Your task to perform on an android device: turn off priority inbox in the gmail app Image 0: 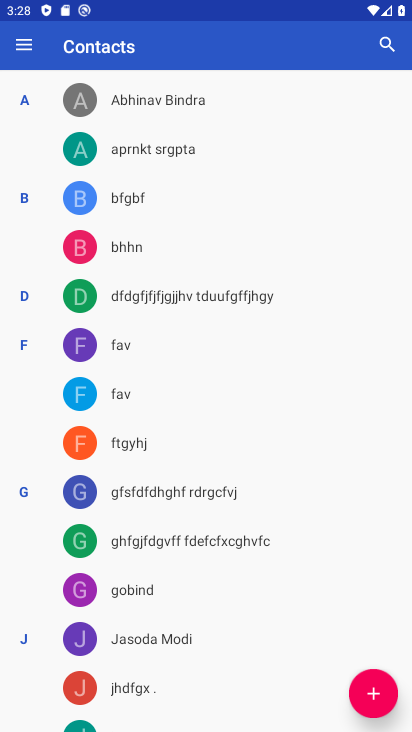
Step 0: press back button
Your task to perform on an android device: turn off priority inbox in the gmail app Image 1: 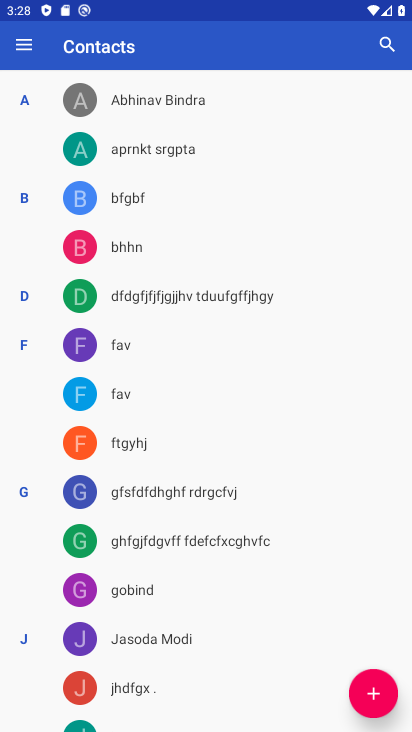
Step 1: press back button
Your task to perform on an android device: turn off priority inbox in the gmail app Image 2: 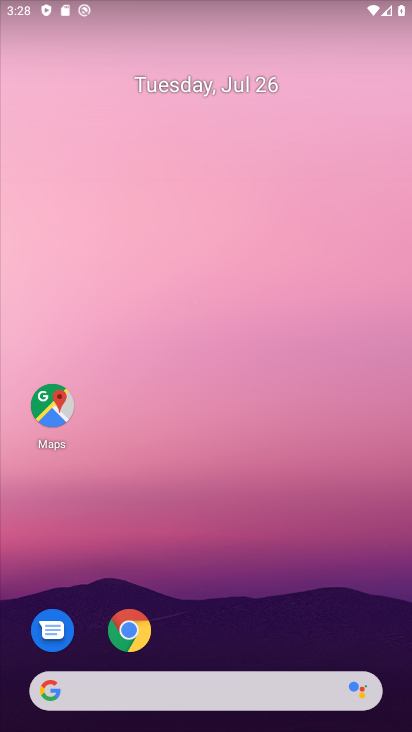
Step 2: drag from (224, 705) to (168, 164)
Your task to perform on an android device: turn off priority inbox in the gmail app Image 3: 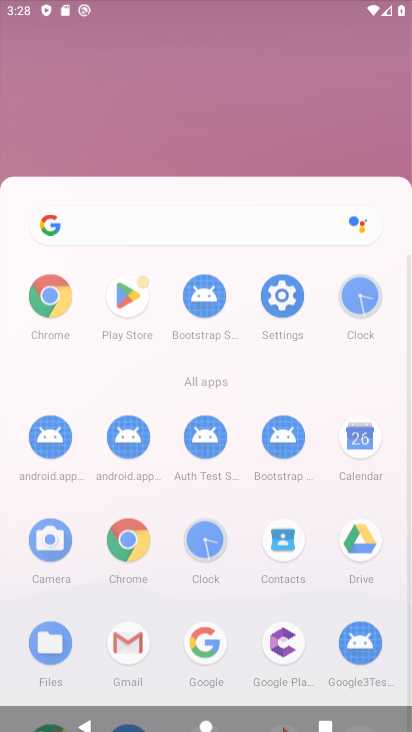
Step 3: drag from (251, 547) to (280, 191)
Your task to perform on an android device: turn off priority inbox in the gmail app Image 4: 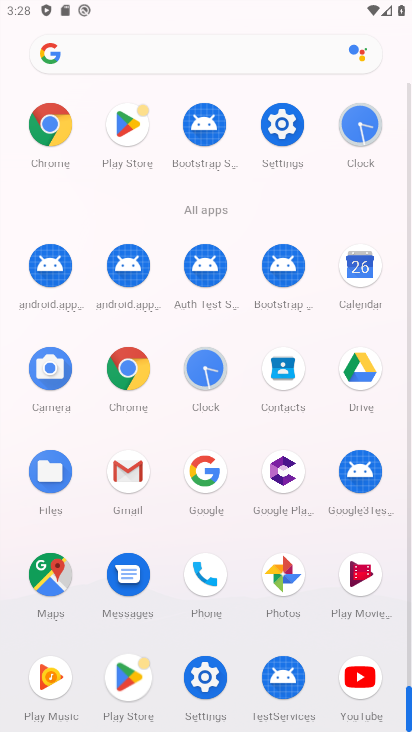
Step 4: click (125, 470)
Your task to perform on an android device: turn off priority inbox in the gmail app Image 5: 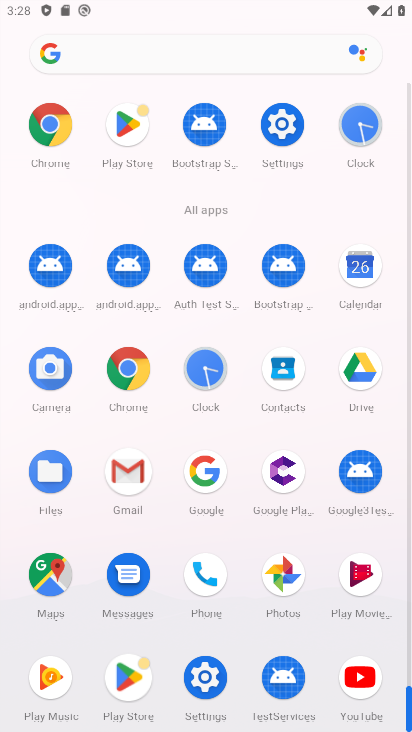
Step 5: click (125, 470)
Your task to perform on an android device: turn off priority inbox in the gmail app Image 6: 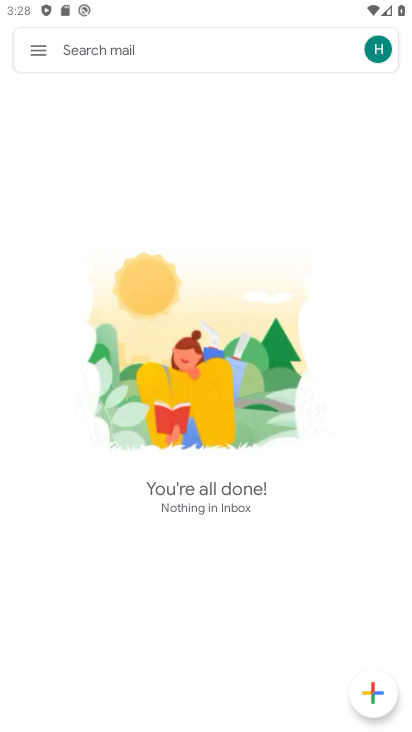
Step 6: click (37, 49)
Your task to perform on an android device: turn off priority inbox in the gmail app Image 7: 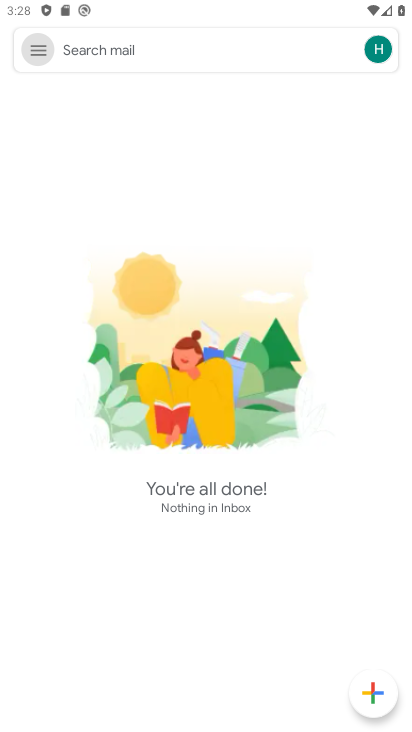
Step 7: click (38, 49)
Your task to perform on an android device: turn off priority inbox in the gmail app Image 8: 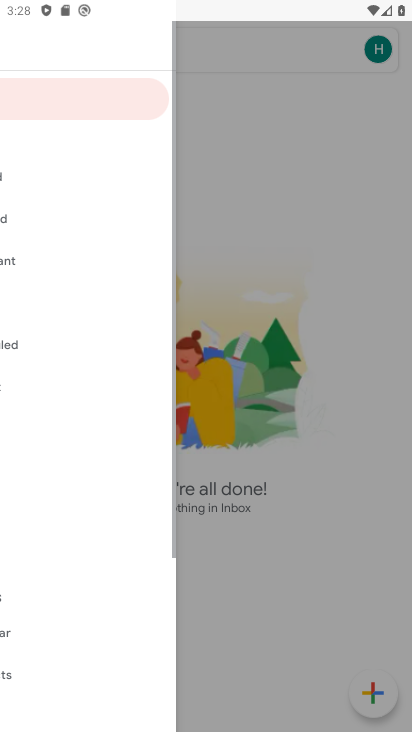
Step 8: click (39, 49)
Your task to perform on an android device: turn off priority inbox in the gmail app Image 9: 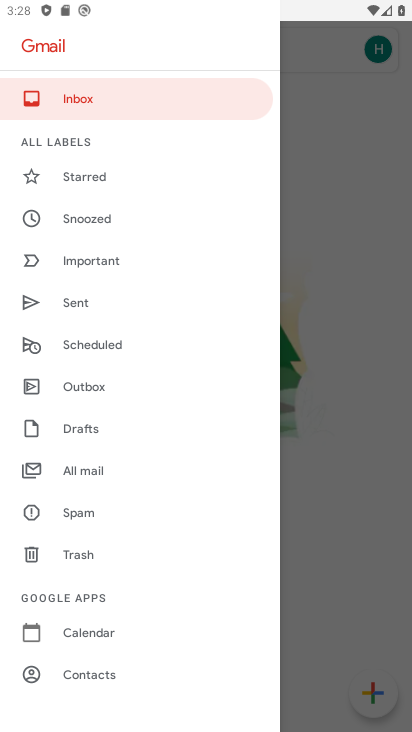
Step 9: drag from (90, 679) to (105, 155)
Your task to perform on an android device: turn off priority inbox in the gmail app Image 10: 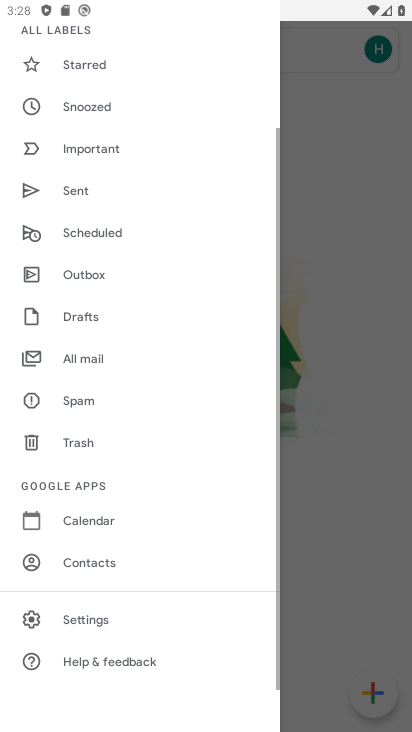
Step 10: drag from (101, 562) to (100, 208)
Your task to perform on an android device: turn off priority inbox in the gmail app Image 11: 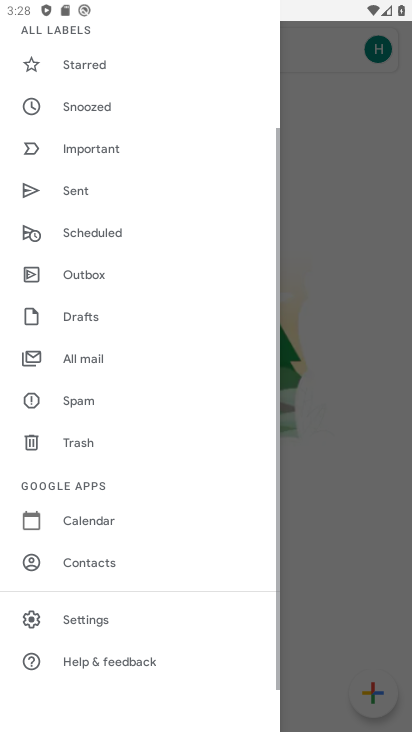
Step 11: click (87, 612)
Your task to perform on an android device: turn off priority inbox in the gmail app Image 12: 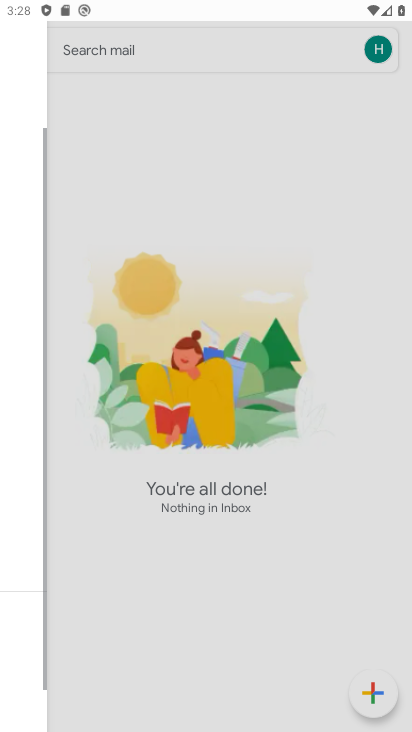
Step 12: click (92, 615)
Your task to perform on an android device: turn off priority inbox in the gmail app Image 13: 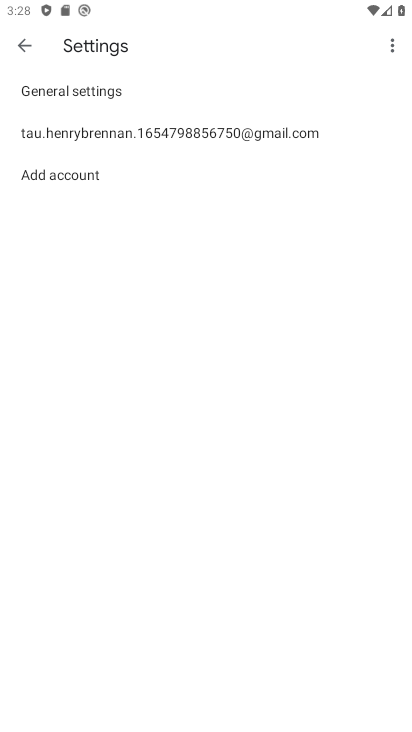
Step 13: click (140, 162)
Your task to perform on an android device: turn off priority inbox in the gmail app Image 14: 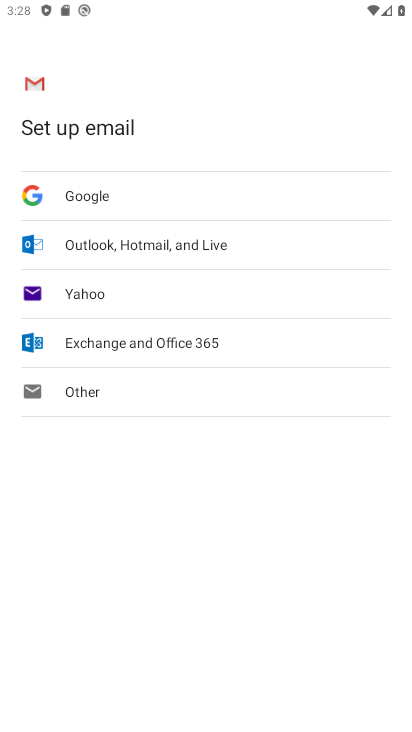
Step 14: press back button
Your task to perform on an android device: turn off priority inbox in the gmail app Image 15: 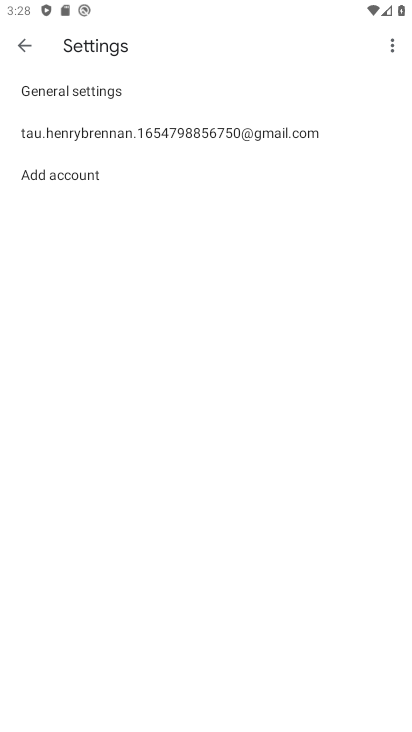
Step 15: click (105, 124)
Your task to perform on an android device: turn off priority inbox in the gmail app Image 16: 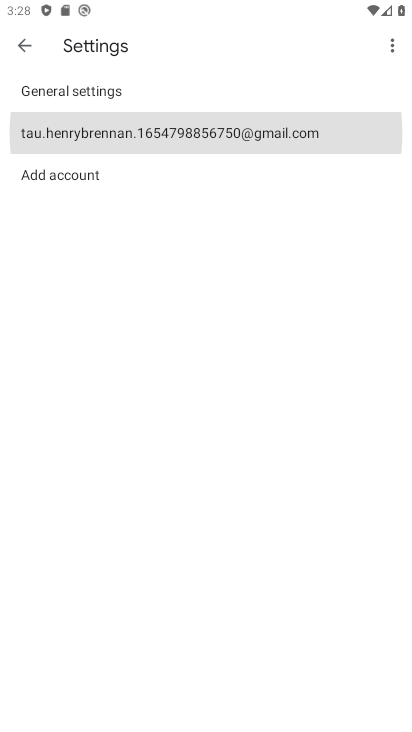
Step 16: click (103, 123)
Your task to perform on an android device: turn off priority inbox in the gmail app Image 17: 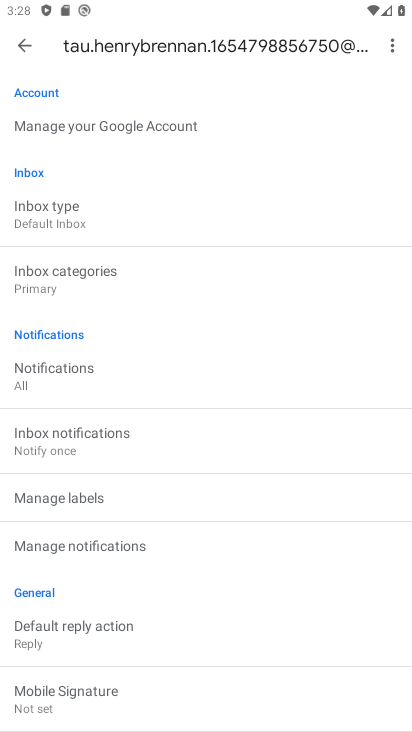
Step 17: drag from (111, 622) to (97, 159)
Your task to perform on an android device: turn off priority inbox in the gmail app Image 18: 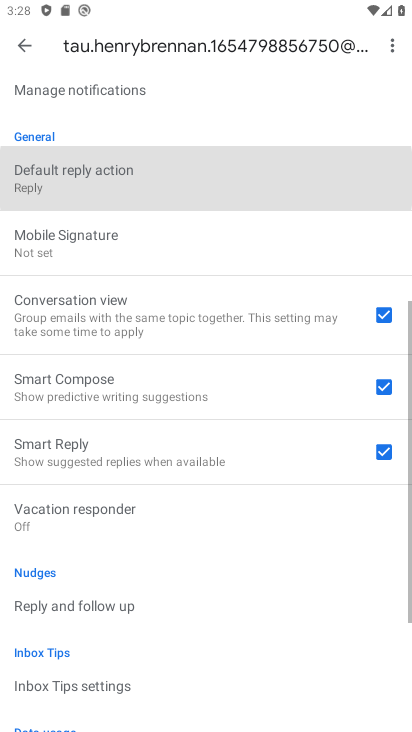
Step 18: drag from (161, 487) to (155, 306)
Your task to perform on an android device: turn off priority inbox in the gmail app Image 19: 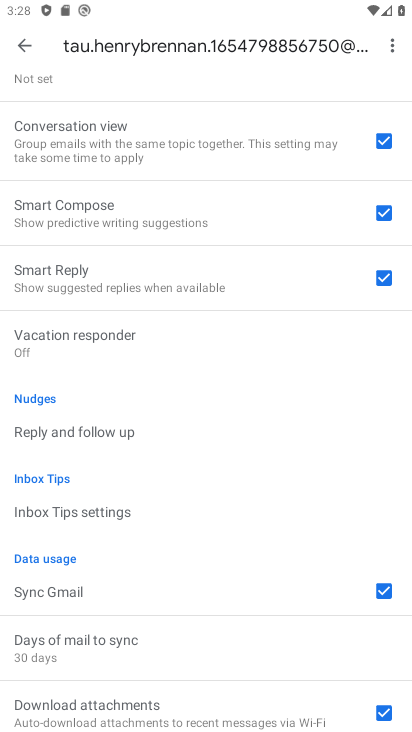
Step 19: drag from (103, 196) to (138, 605)
Your task to perform on an android device: turn off priority inbox in the gmail app Image 20: 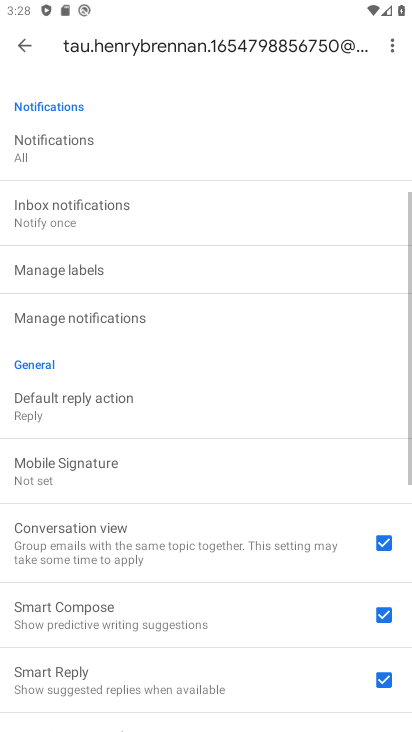
Step 20: click (50, 219)
Your task to perform on an android device: turn off priority inbox in the gmail app Image 21: 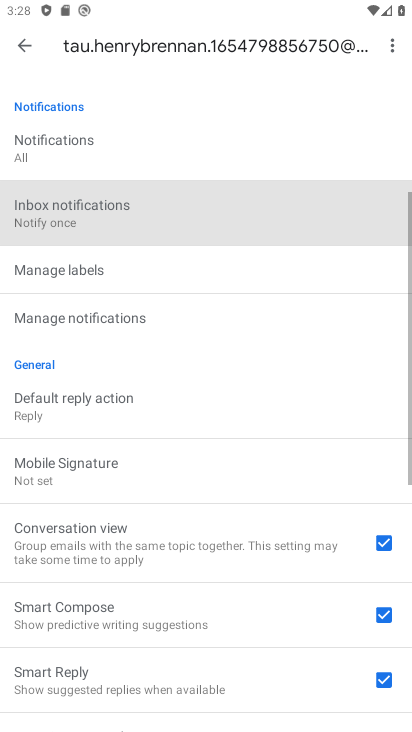
Step 21: click (49, 218)
Your task to perform on an android device: turn off priority inbox in the gmail app Image 22: 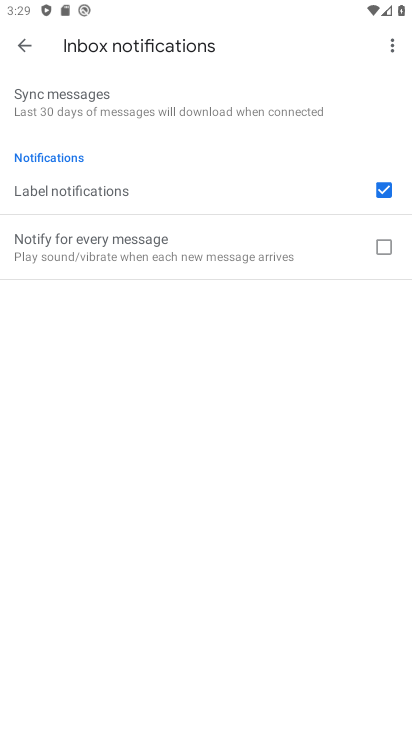
Step 22: click (22, 37)
Your task to perform on an android device: turn off priority inbox in the gmail app Image 23: 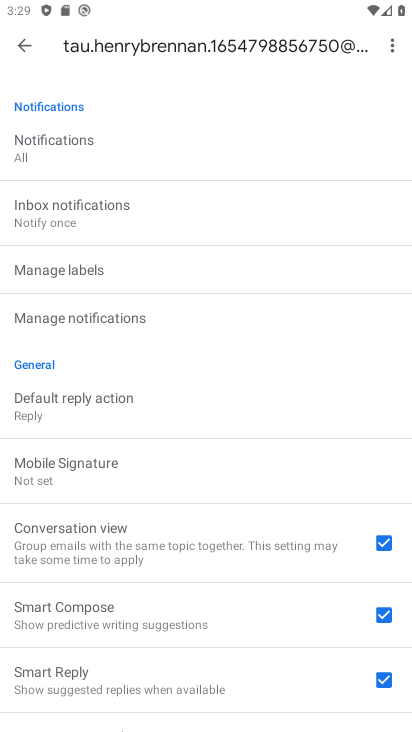
Step 23: click (64, 214)
Your task to perform on an android device: turn off priority inbox in the gmail app Image 24: 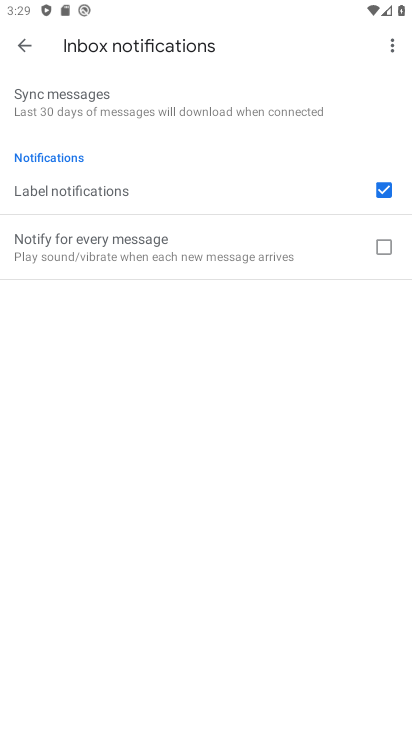
Step 24: click (26, 43)
Your task to perform on an android device: turn off priority inbox in the gmail app Image 25: 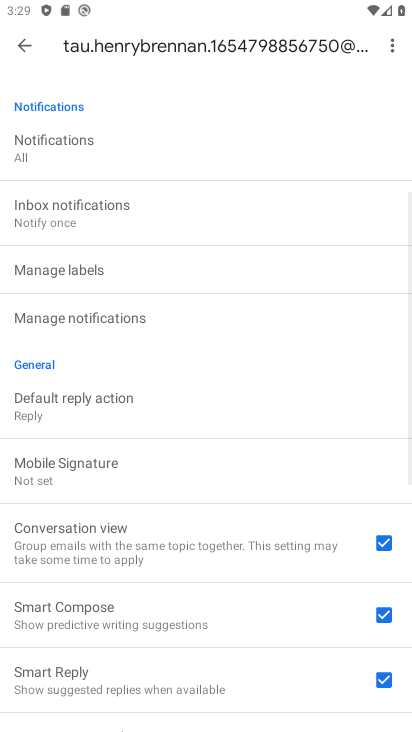
Step 25: drag from (61, 142) to (93, 609)
Your task to perform on an android device: turn off priority inbox in the gmail app Image 26: 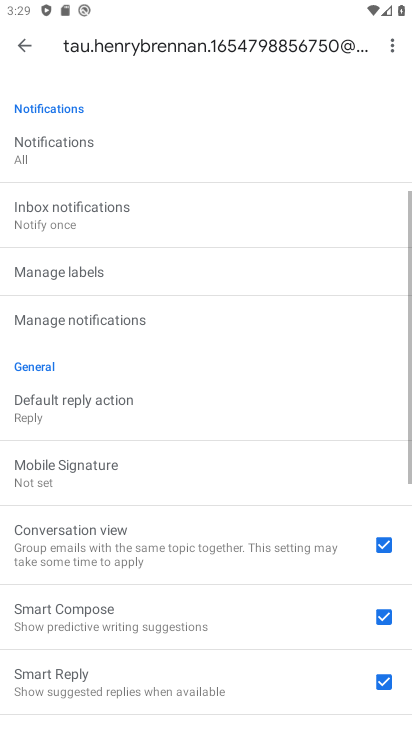
Step 26: drag from (93, 179) to (97, 501)
Your task to perform on an android device: turn off priority inbox in the gmail app Image 27: 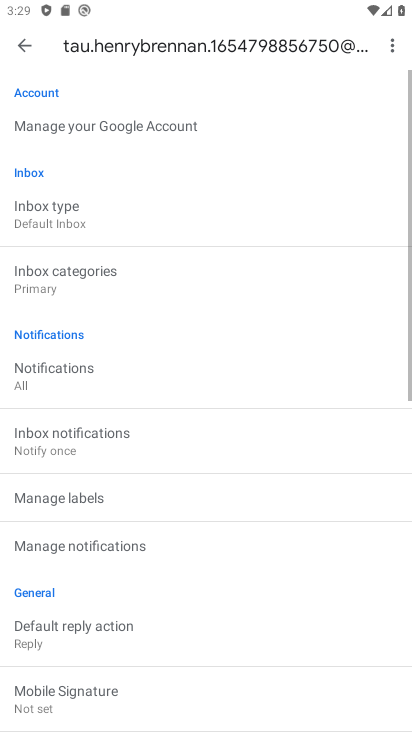
Step 27: click (48, 220)
Your task to perform on an android device: turn off priority inbox in the gmail app Image 28: 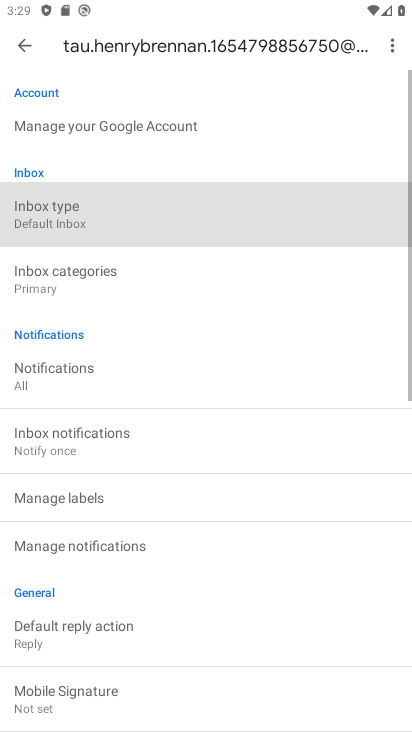
Step 28: click (50, 218)
Your task to perform on an android device: turn off priority inbox in the gmail app Image 29: 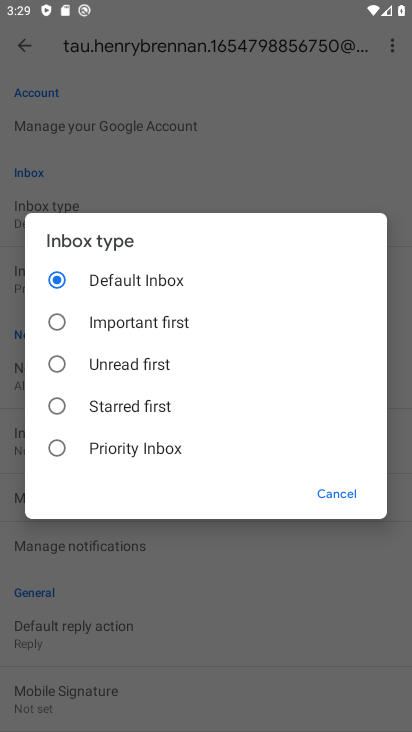
Step 29: task complete